Your task to perform on an android device: turn off notifications in google photos Image 0: 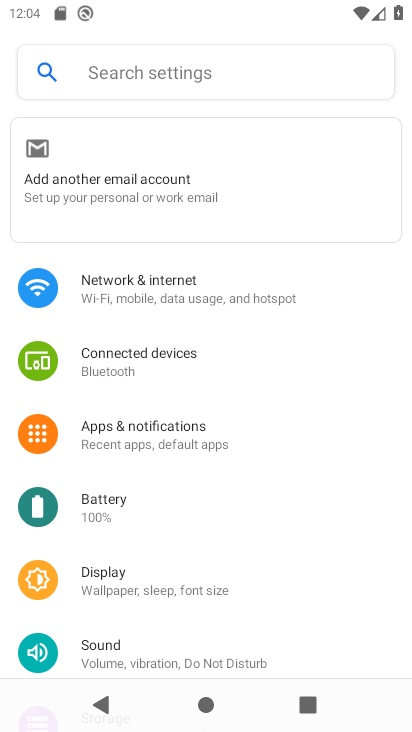
Step 0: press home button
Your task to perform on an android device: turn off notifications in google photos Image 1: 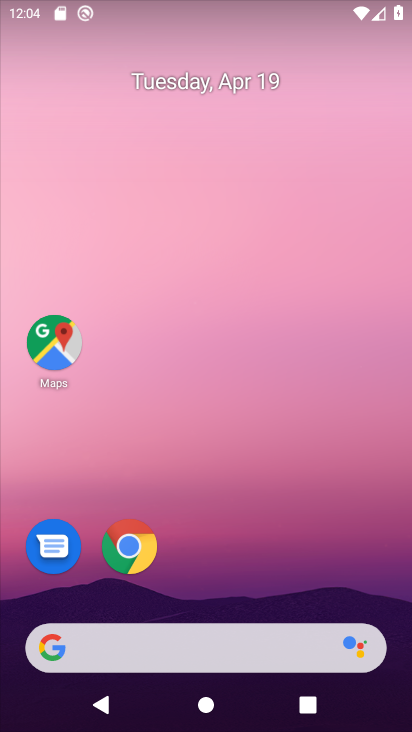
Step 1: drag from (223, 559) to (313, 0)
Your task to perform on an android device: turn off notifications in google photos Image 2: 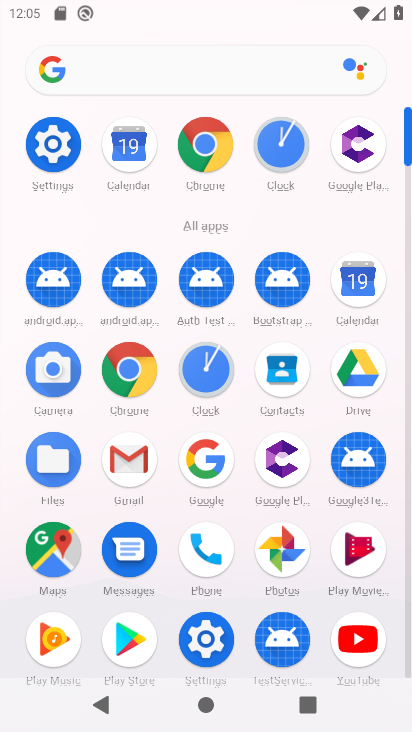
Step 2: click (280, 543)
Your task to perform on an android device: turn off notifications in google photos Image 3: 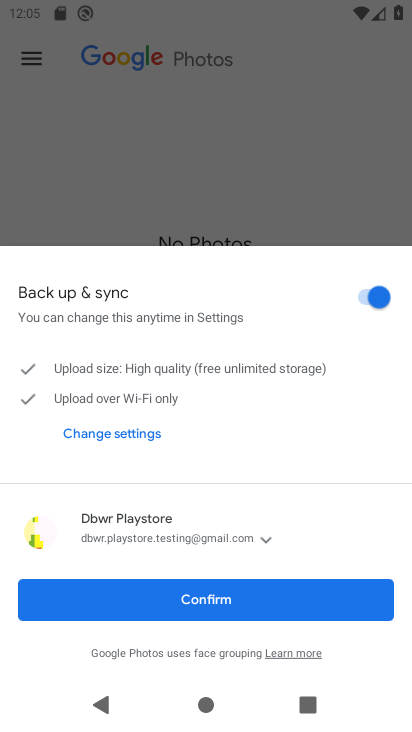
Step 3: click (212, 592)
Your task to perform on an android device: turn off notifications in google photos Image 4: 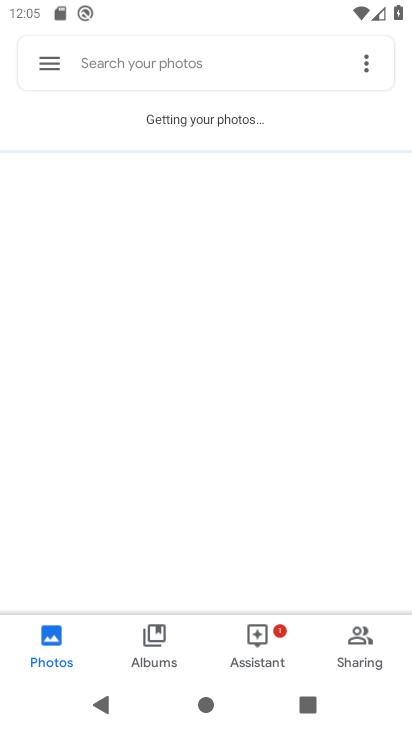
Step 4: click (44, 58)
Your task to perform on an android device: turn off notifications in google photos Image 5: 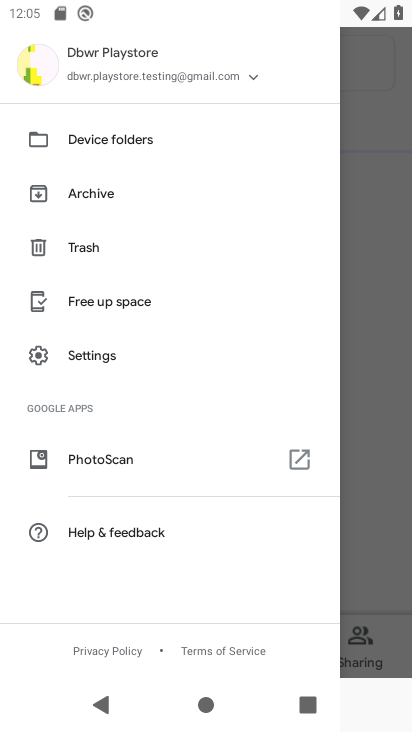
Step 5: click (106, 357)
Your task to perform on an android device: turn off notifications in google photos Image 6: 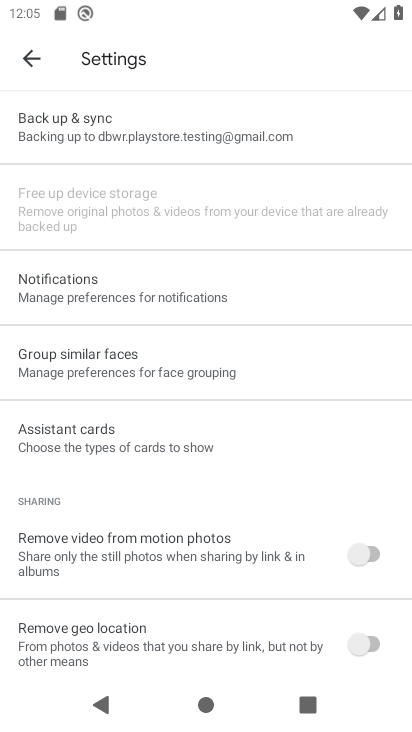
Step 6: click (113, 284)
Your task to perform on an android device: turn off notifications in google photos Image 7: 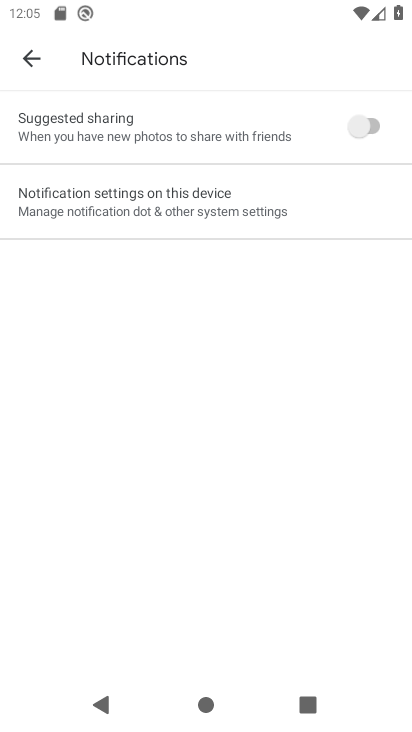
Step 7: click (227, 205)
Your task to perform on an android device: turn off notifications in google photos Image 8: 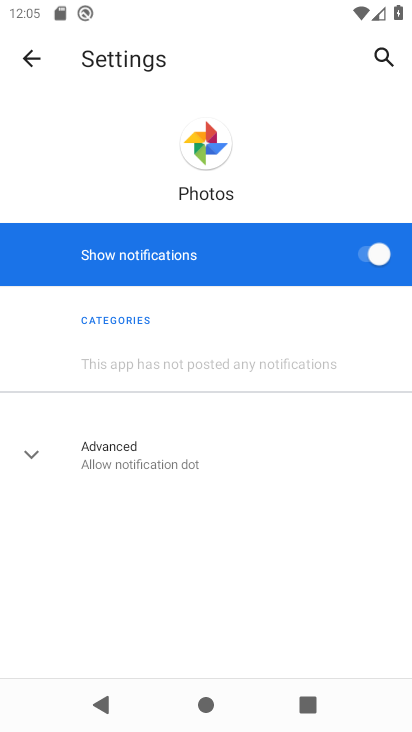
Step 8: click (368, 255)
Your task to perform on an android device: turn off notifications in google photos Image 9: 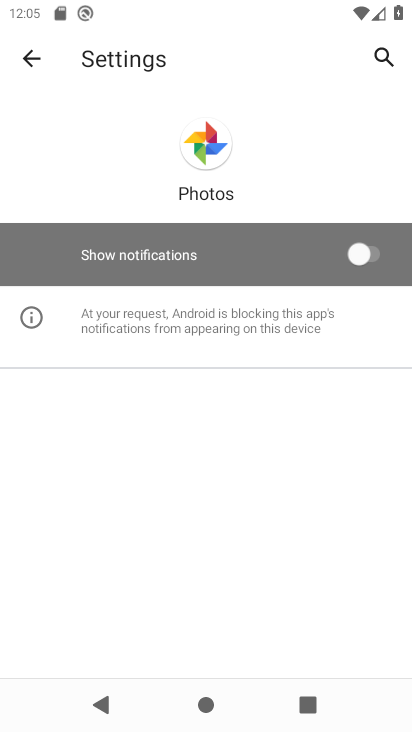
Step 9: task complete